Your task to perform on an android device: How do I get to the nearest electronics store? Image 0: 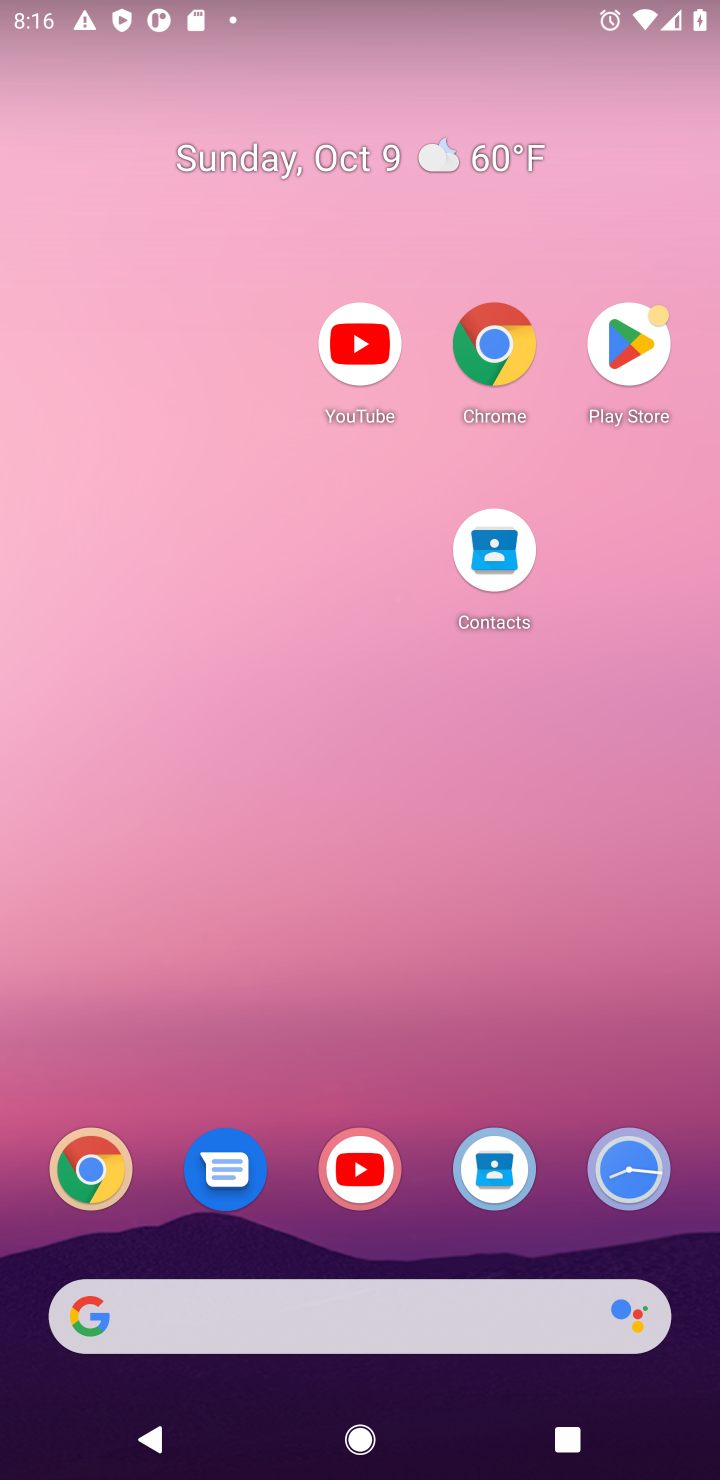
Step 0: drag from (434, 1241) to (236, 351)
Your task to perform on an android device: How do I get to the nearest electronics store? Image 1: 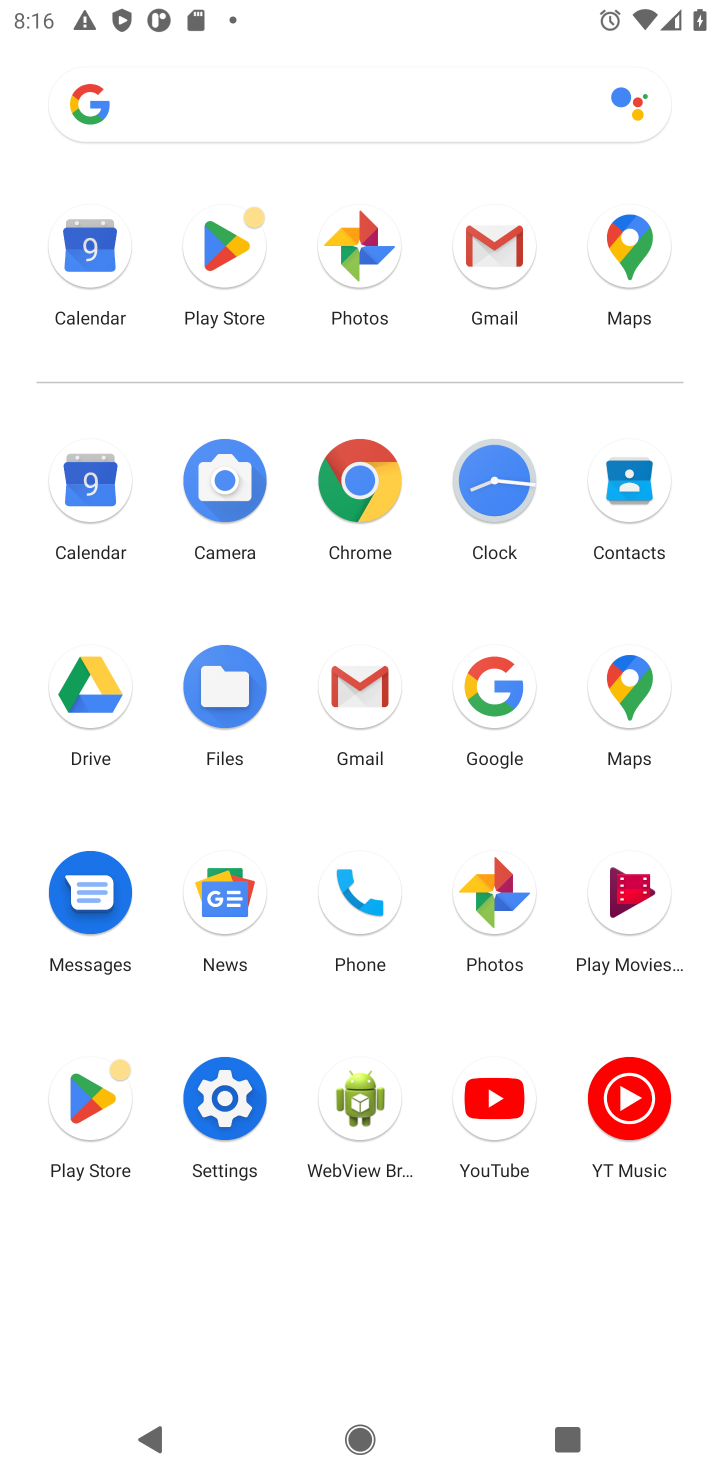
Step 1: click (363, 491)
Your task to perform on an android device: How do I get to the nearest electronics store? Image 2: 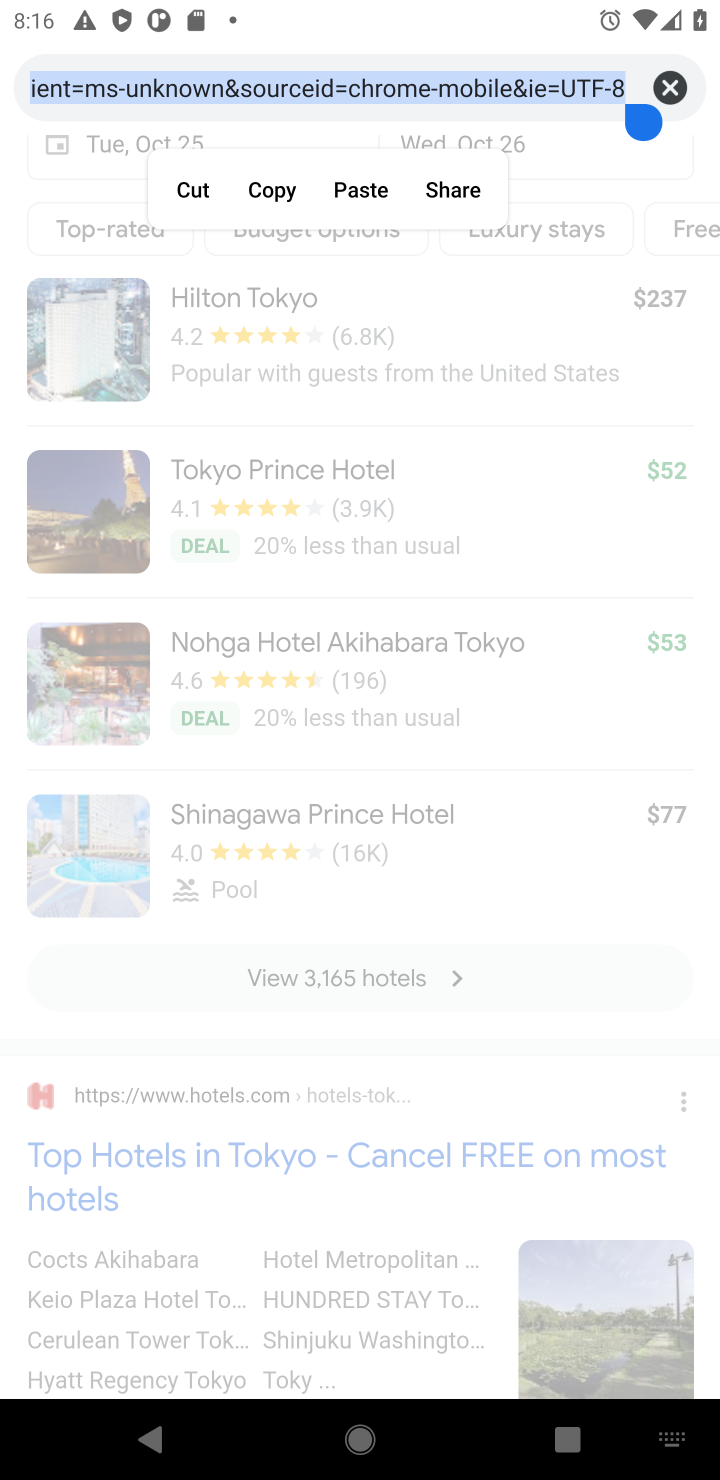
Step 2: click (679, 90)
Your task to perform on an android device: How do I get to the nearest electronics store? Image 3: 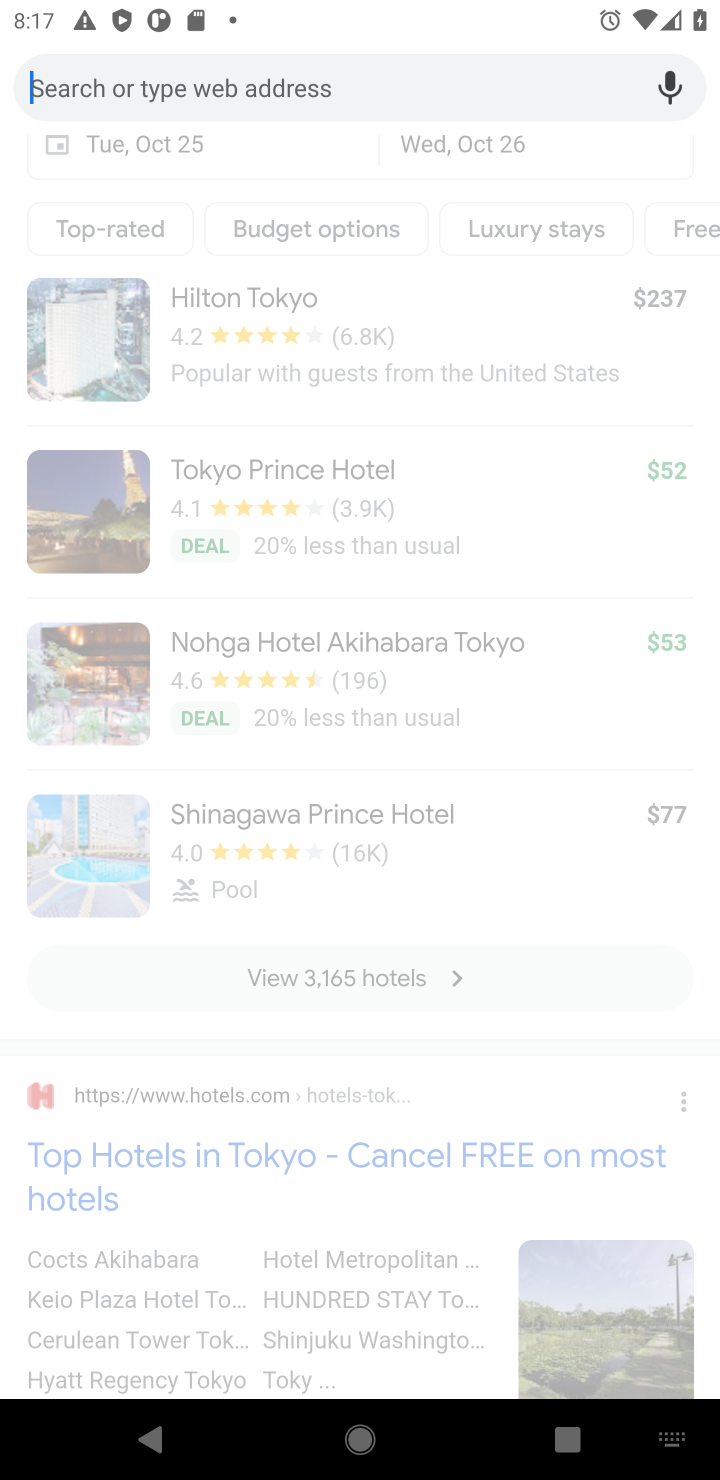
Step 3: type "nearest electronics store?"
Your task to perform on an android device: How do I get to the nearest electronics store? Image 4: 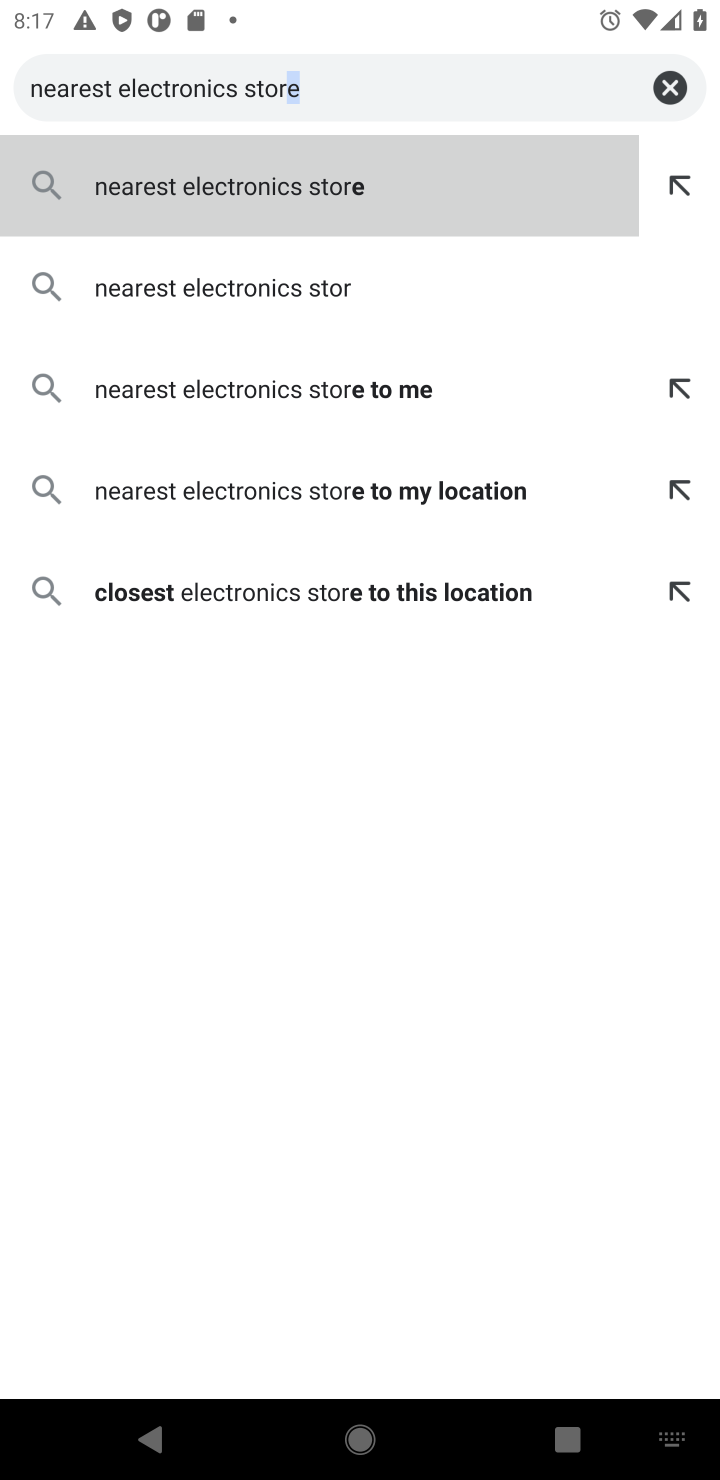
Step 4: press enter
Your task to perform on an android device: How do I get to the nearest electronics store? Image 5: 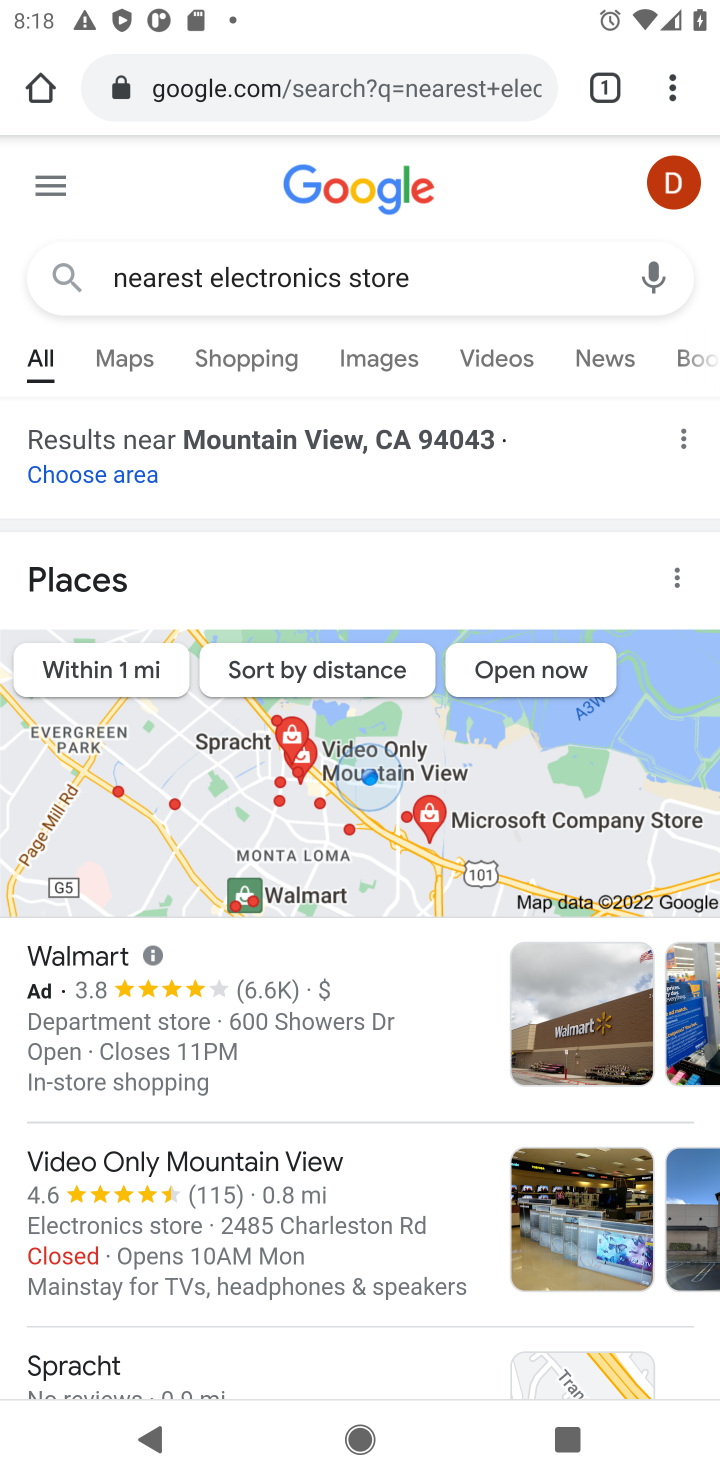
Step 5: task complete